Your task to perform on an android device: move an email to a new category in the gmail app Image 0: 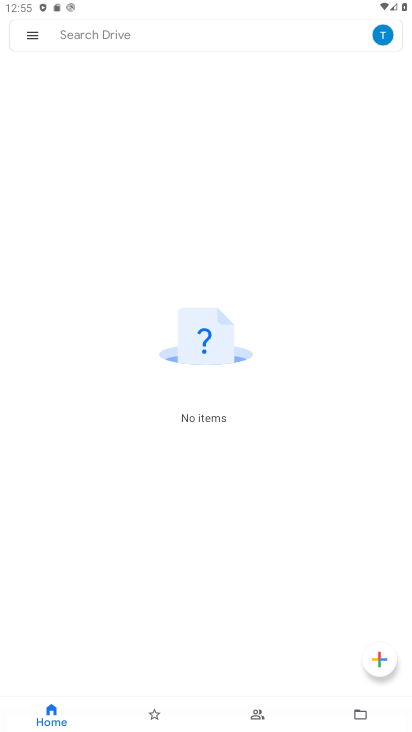
Step 0: press home button
Your task to perform on an android device: move an email to a new category in the gmail app Image 1: 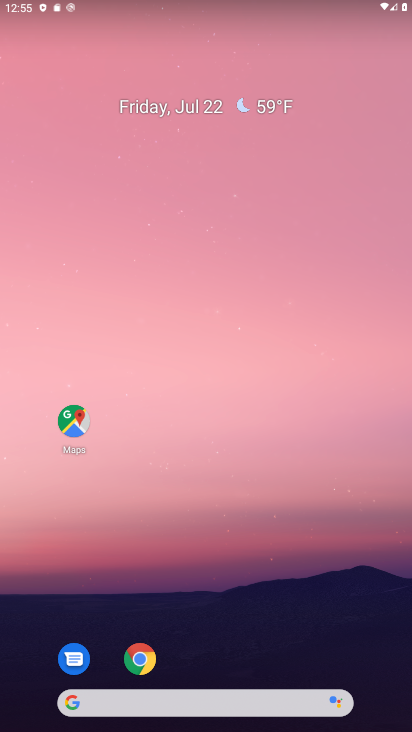
Step 1: drag from (221, 645) to (239, 256)
Your task to perform on an android device: move an email to a new category in the gmail app Image 2: 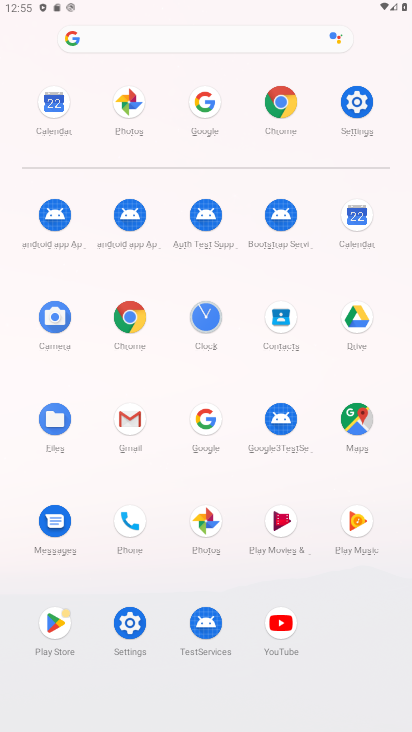
Step 2: click (132, 441)
Your task to perform on an android device: move an email to a new category in the gmail app Image 3: 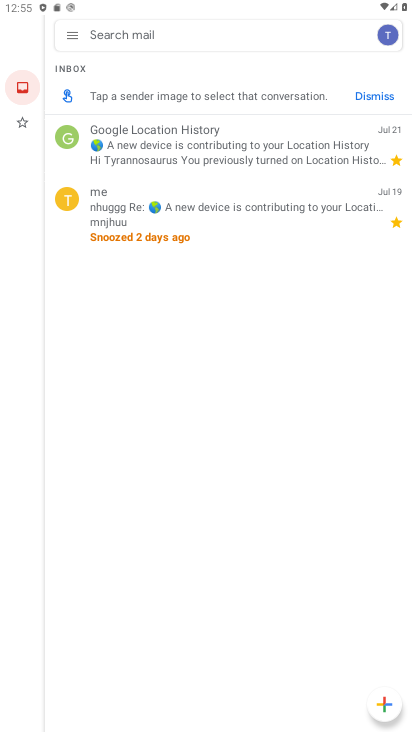
Step 3: click (196, 145)
Your task to perform on an android device: move an email to a new category in the gmail app Image 4: 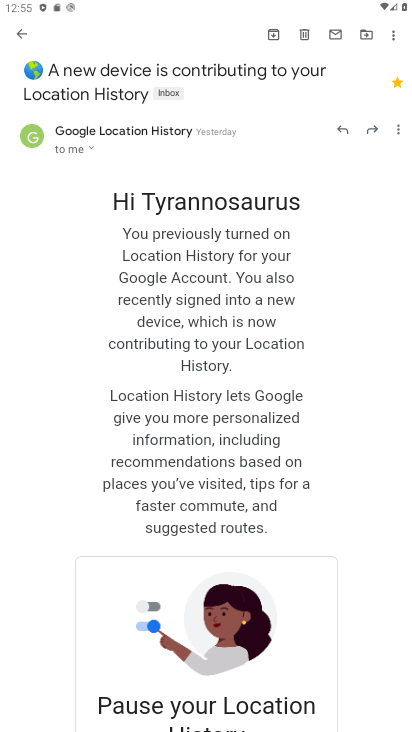
Step 4: click (389, 39)
Your task to perform on an android device: move an email to a new category in the gmail app Image 5: 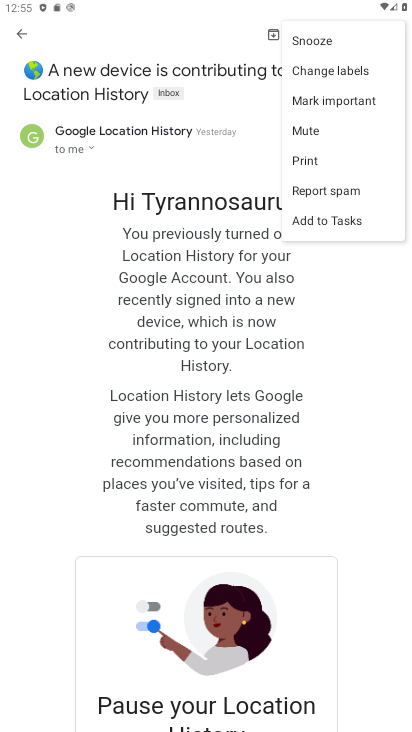
Step 5: click (374, 72)
Your task to perform on an android device: move an email to a new category in the gmail app Image 6: 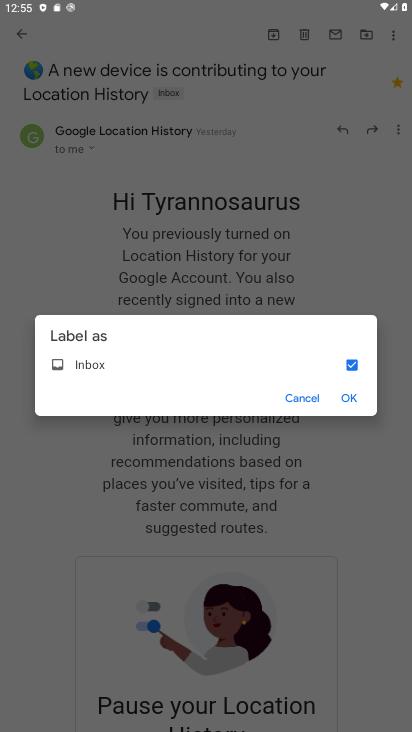
Step 6: click (344, 401)
Your task to perform on an android device: move an email to a new category in the gmail app Image 7: 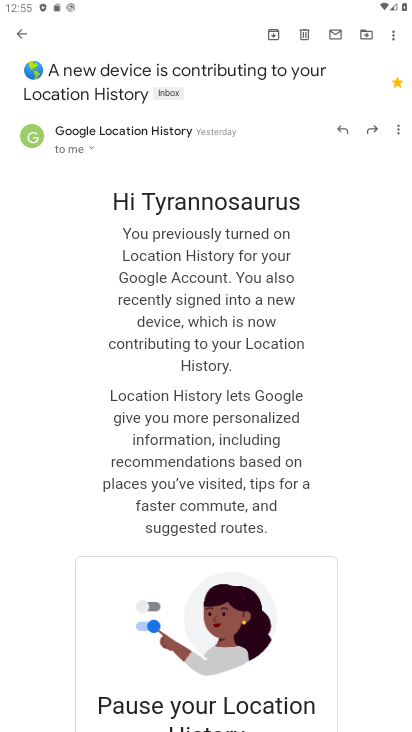
Step 7: task complete